Your task to perform on an android device: toggle show notifications on the lock screen Image 0: 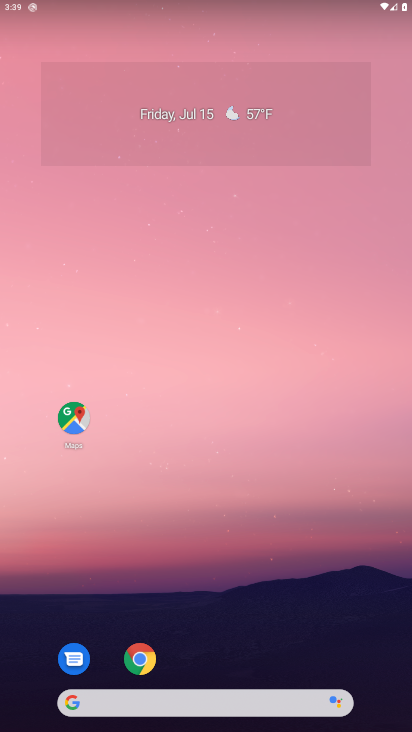
Step 0: drag from (28, 661) to (194, 214)
Your task to perform on an android device: toggle show notifications on the lock screen Image 1: 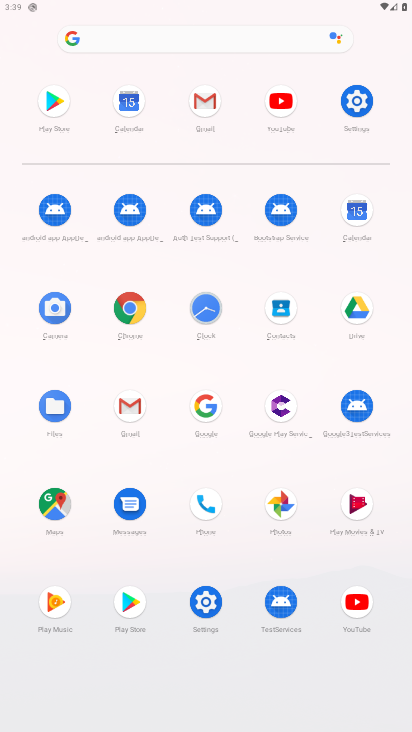
Step 1: click (215, 605)
Your task to perform on an android device: toggle show notifications on the lock screen Image 2: 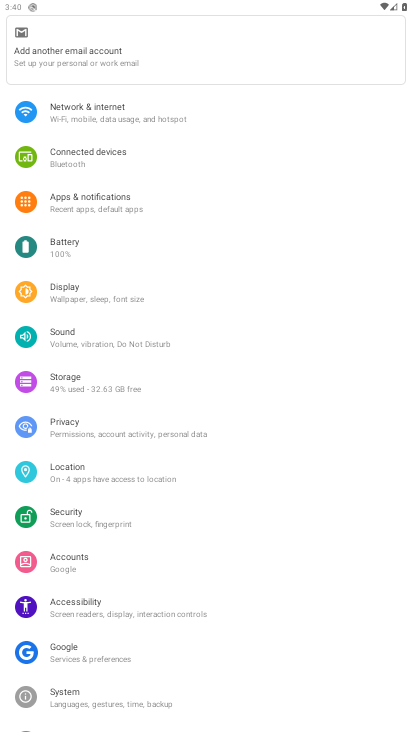
Step 2: click (64, 437)
Your task to perform on an android device: toggle show notifications on the lock screen Image 3: 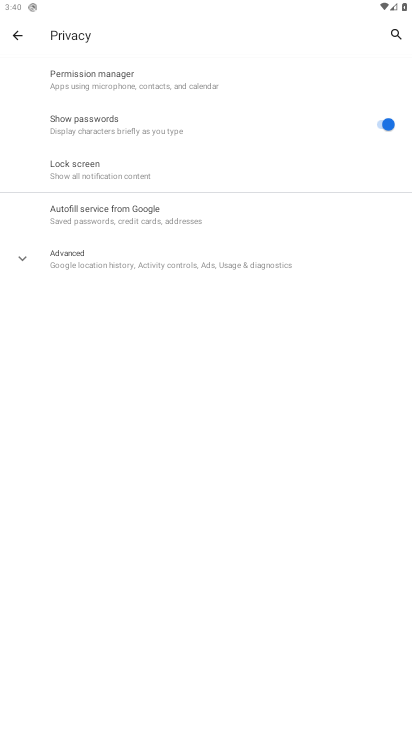
Step 3: click (109, 176)
Your task to perform on an android device: toggle show notifications on the lock screen Image 4: 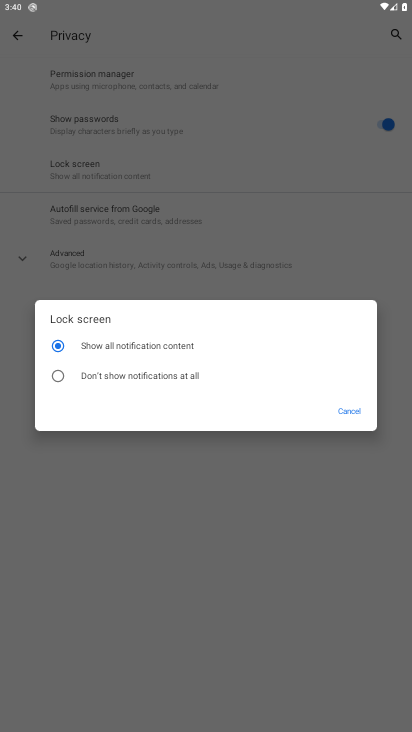
Step 4: task complete